Your task to perform on an android device: delete the emails in spam in the gmail app Image 0: 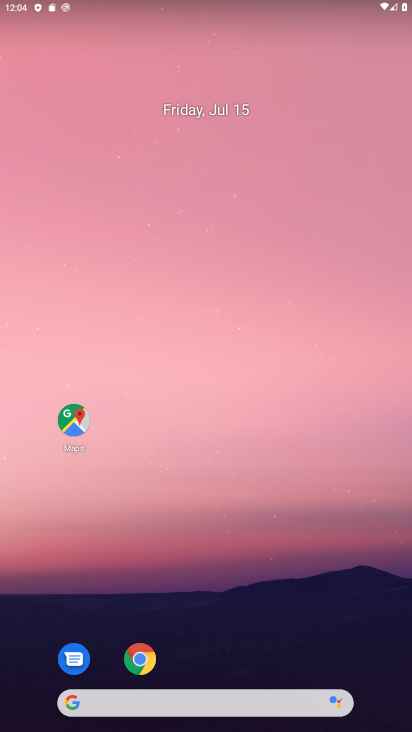
Step 0: drag from (192, 649) to (167, 193)
Your task to perform on an android device: delete the emails in spam in the gmail app Image 1: 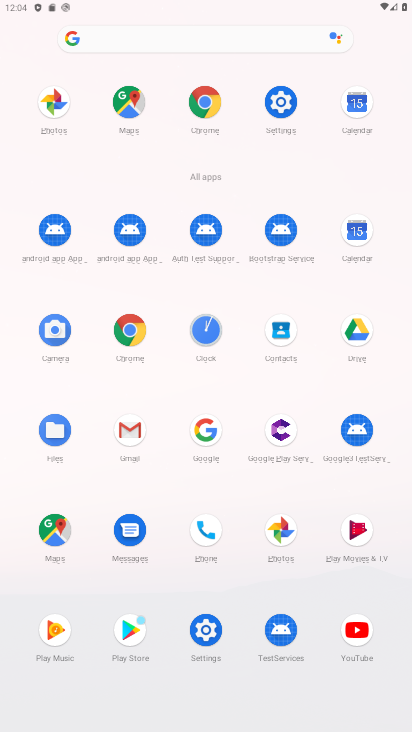
Step 1: click (129, 422)
Your task to perform on an android device: delete the emails in spam in the gmail app Image 2: 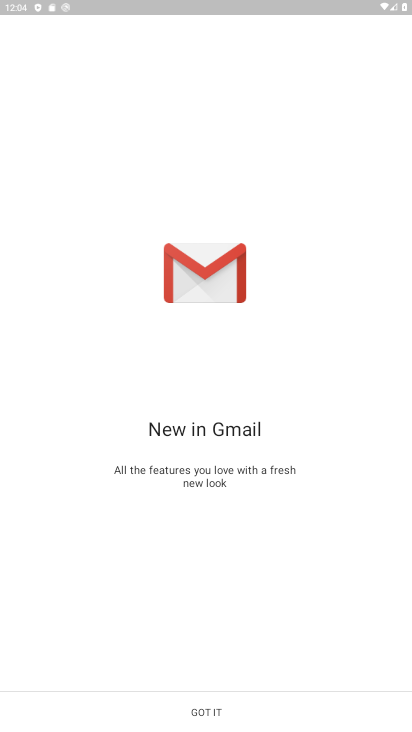
Step 2: click (290, 719)
Your task to perform on an android device: delete the emails in spam in the gmail app Image 3: 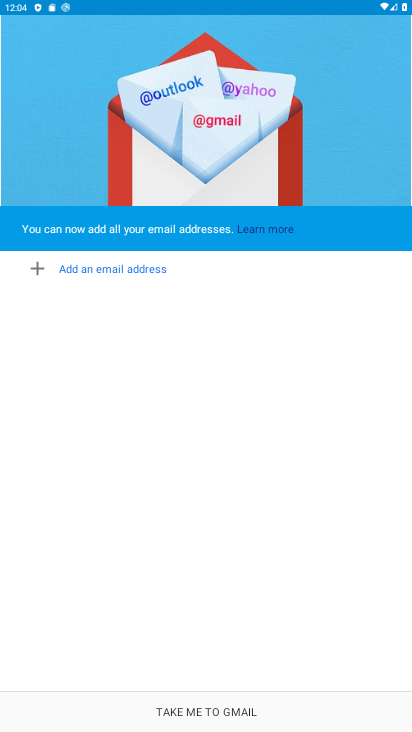
Step 3: click (290, 719)
Your task to perform on an android device: delete the emails in spam in the gmail app Image 4: 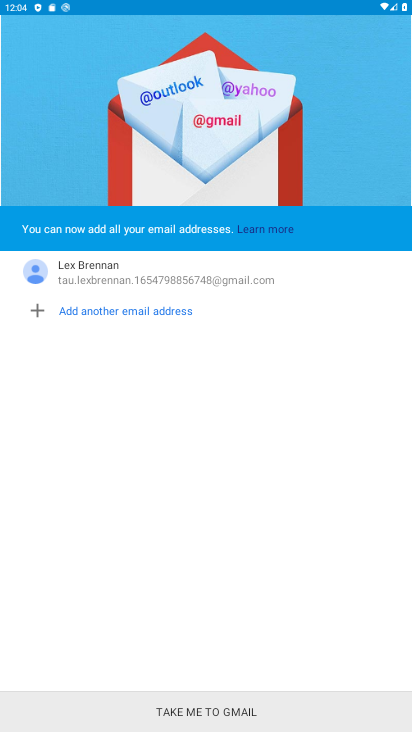
Step 4: click (291, 719)
Your task to perform on an android device: delete the emails in spam in the gmail app Image 5: 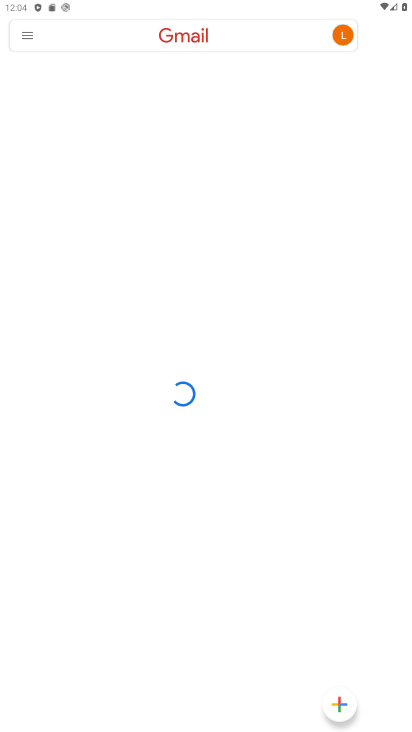
Step 5: click (33, 36)
Your task to perform on an android device: delete the emails in spam in the gmail app Image 6: 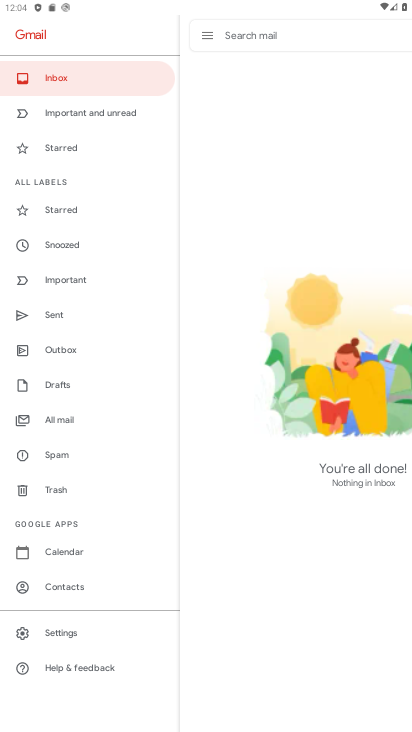
Step 6: click (69, 453)
Your task to perform on an android device: delete the emails in spam in the gmail app Image 7: 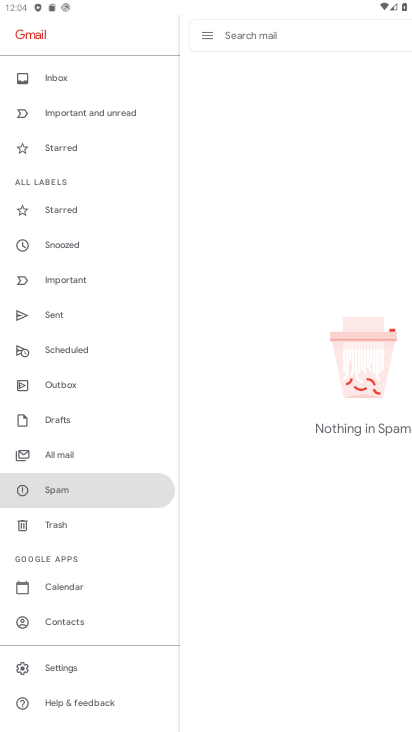
Step 7: click (59, 488)
Your task to perform on an android device: delete the emails in spam in the gmail app Image 8: 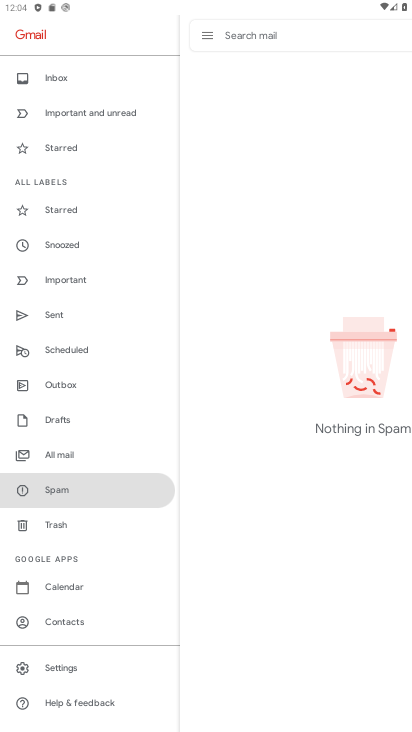
Step 8: task complete